Your task to perform on an android device: choose inbox layout in the gmail app Image 0: 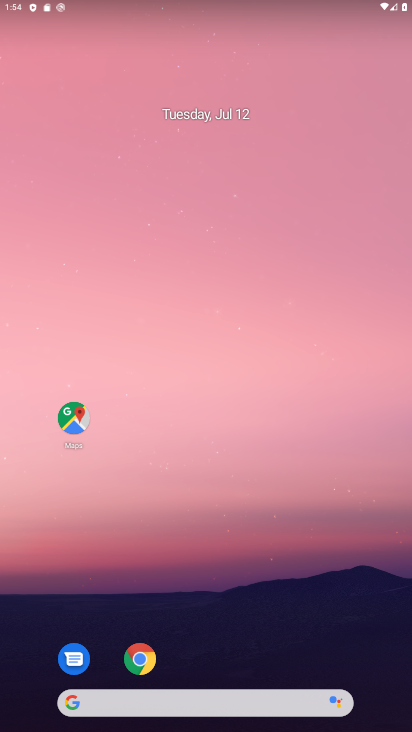
Step 0: drag from (239, 514) to (249, 174)
Your task to perform on an android device: choose inbox layout in the gmail app Image 1: 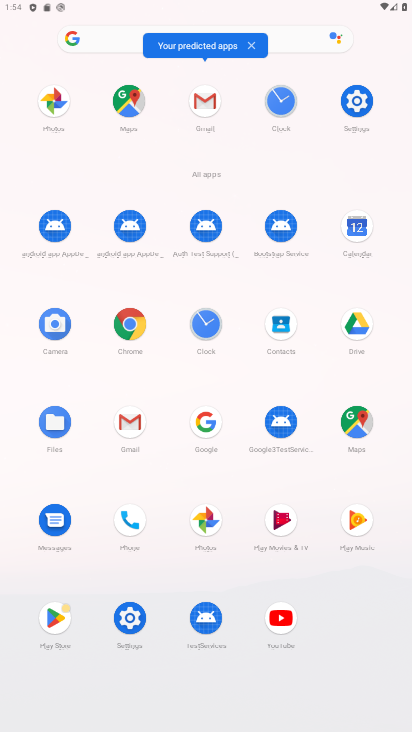
Step 1: click (125, 429)
Your task to perform on an android device: choose inbox layout in the gmail app Image 2: 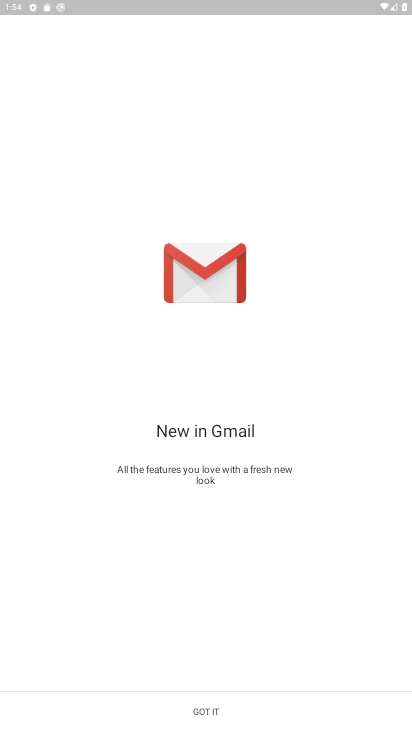
Step 2: click (206, 710)
Your task to perform on an android device: choose inbox layout in the gmail app Image 3: 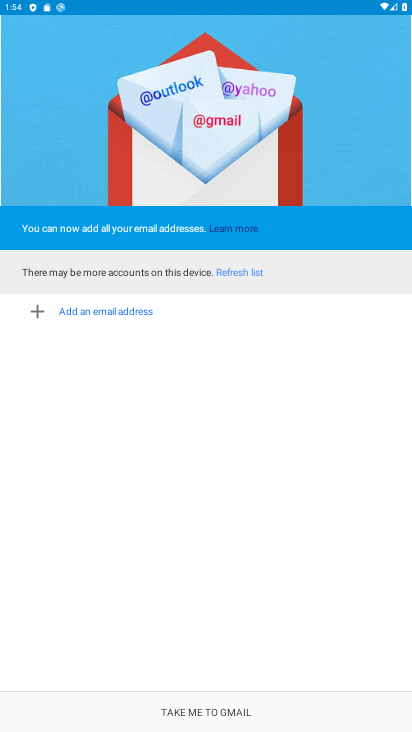
Step 3: click (213, 713)
Your task to perform on an android device: choose inbox layout in the gmail app Image 4: 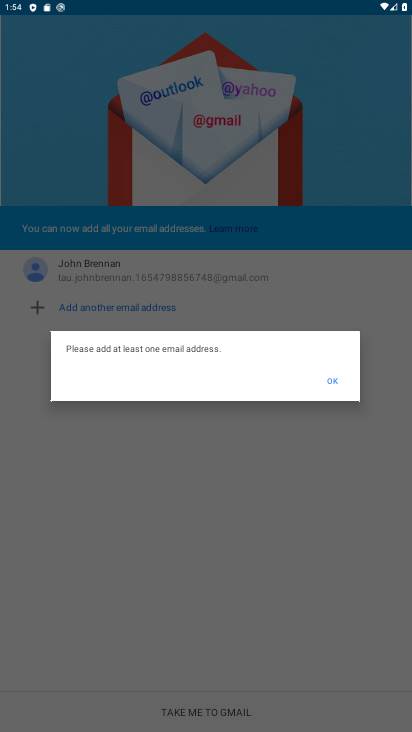
Step 4: click (334, 380)
Your task to perform on an android device: choose inbox layout in the gmail app Image 5: 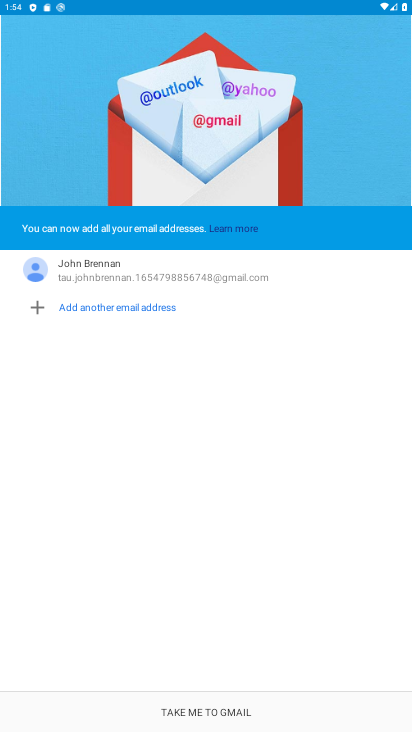
Step 5: click (223, 714)
Your task to perform on an android device: choose inbox layout in the gmail app Image 6: 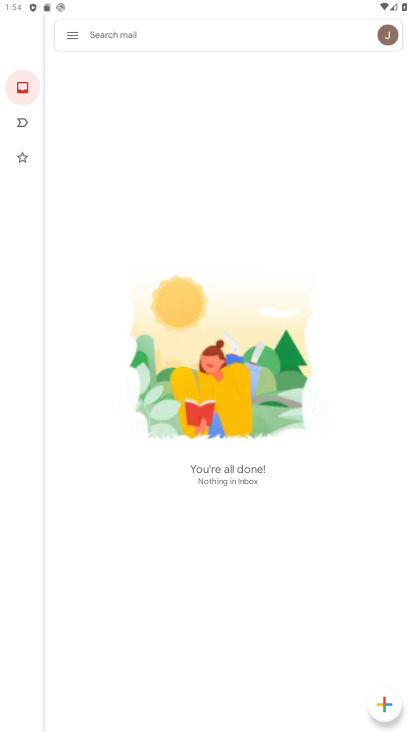
Step 6: click (76, 35)
Your task to perform on an android device: choose inbox layout in the gmail app Image 7: 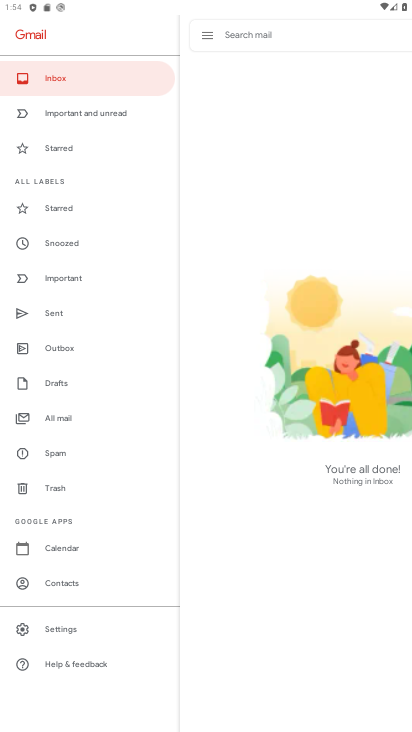
Step 7: click (61, 630)
Your task to perform on an android device: choose inbox layout in the gmail app Image 8: 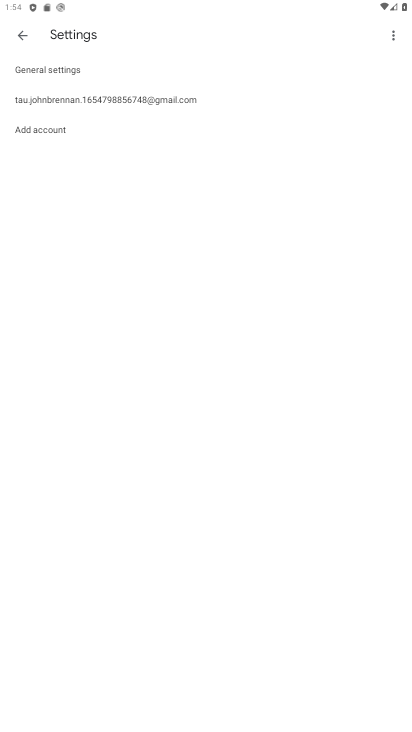
Step 8: click (194, 98)
Your task to perform on an android device: choose inbox layout in the gmail app Image 9: 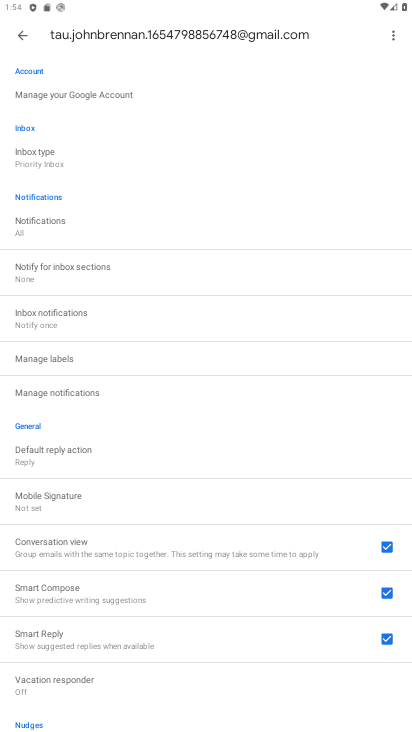
Step 9: click (105, 166)
Your task to perform on an android device: choose inbox layout in the gmail app Image 10: 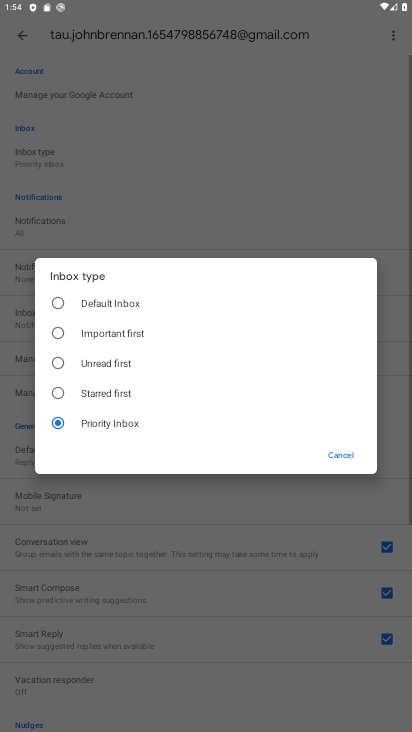
Step 10: click (156, 301)
Your task to perform on an android device: choose inbox layout in the gmail app Image 11: 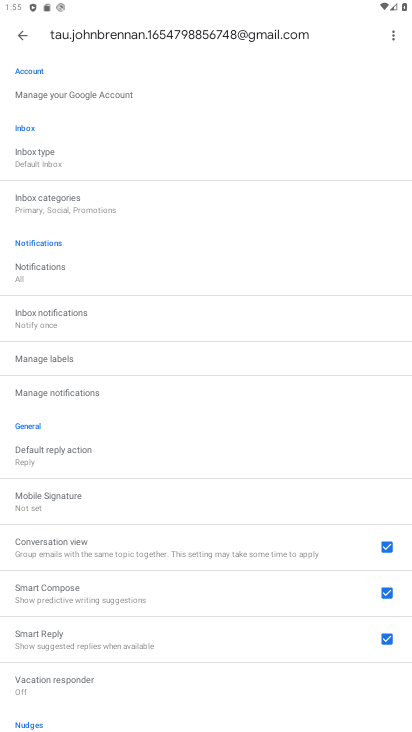
Step 11: task complete